Your task to perform on an android device: open a new tab in the chrome app Image 0: 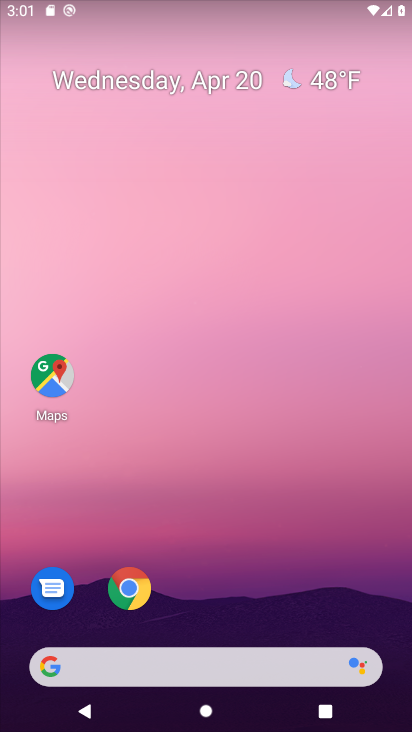
Step 0: drag from (299, 614) to (335, 253)
Your task to perform on an android device: open a new tab in the chrome app Image 1: 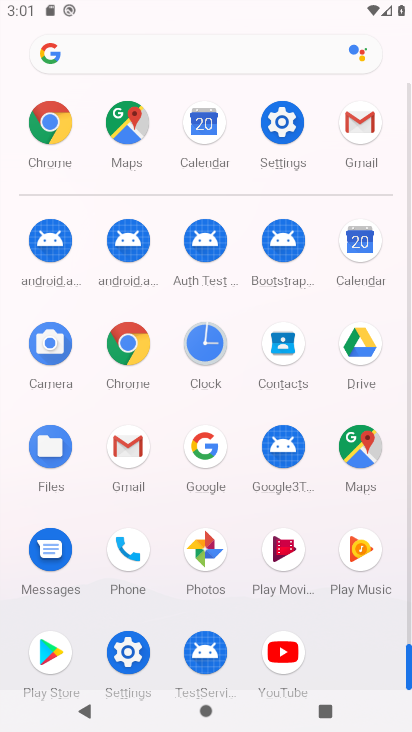
Step 1: click (110, 347)
Your task to perform on an android device: open a new tab in the chrome app Image 2: 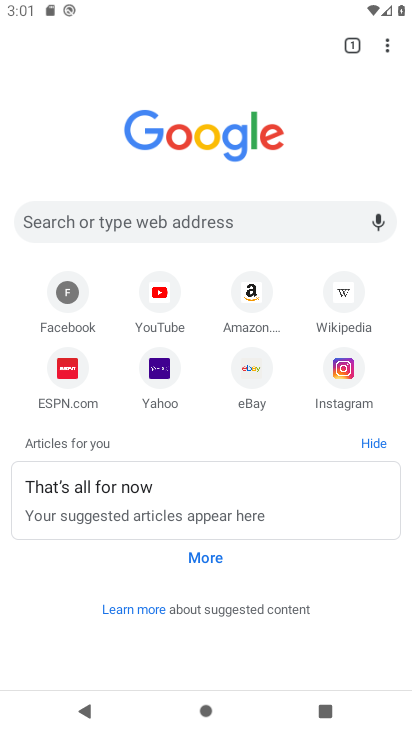
Step 2: click (386, 47)
Your task to perform on an android device: open a new tab in the chrome app Image 3: 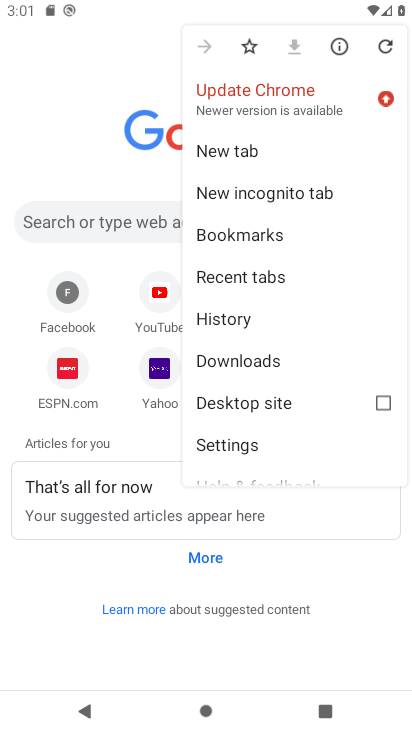
Step 3: click (255, 149)
Your task to perform on an android device: open a new tab in the chrome app Image 4: 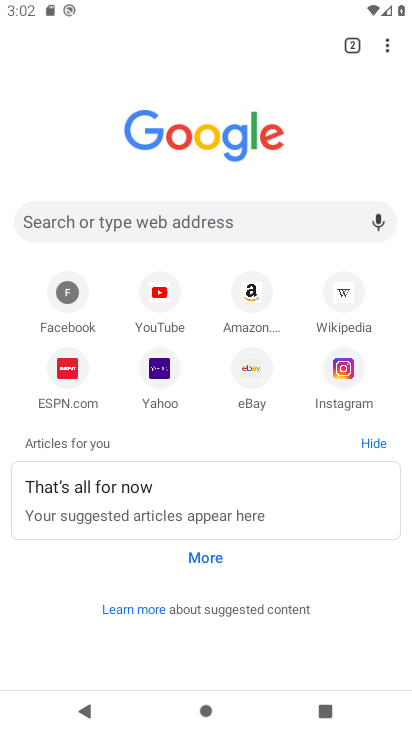
Step 4: task complete